Your task to perform on an android device: check storage Image 0: 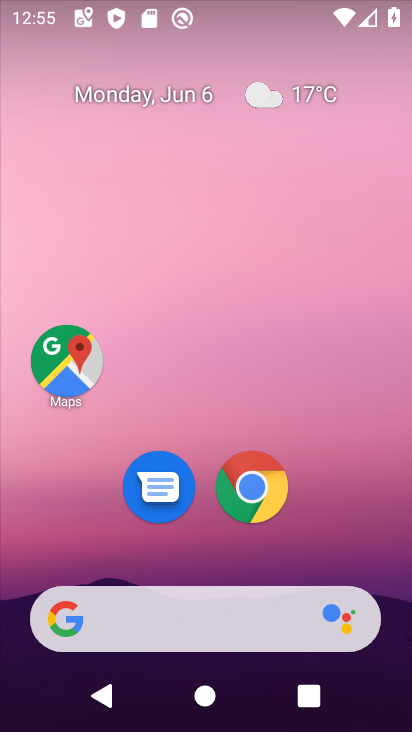
Step 0: drag from (84, 558) to (166, 154)
Your task to perform on an android device: check storage Image 1: 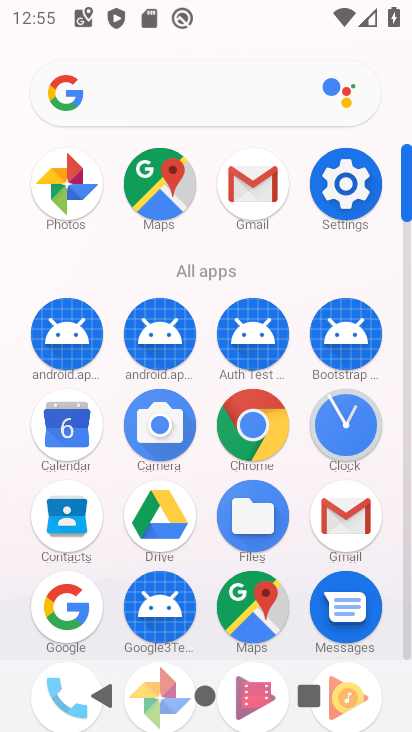
Step 1: drag from (145, 653) to (208, 284)
Your task to perform on an android device: check storage Image 2: 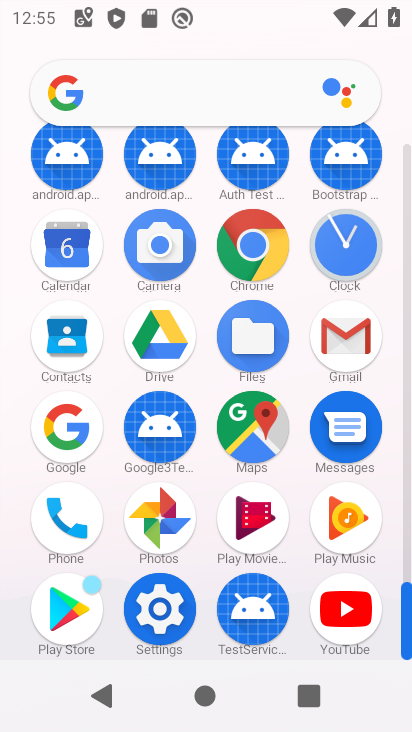
Step 2: click (155, 615)
Your task to perform on an android device: check storage Image 3: 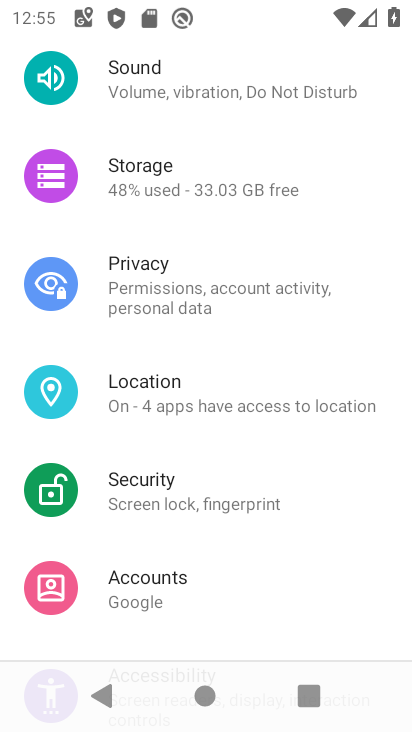
Step 3: drag from (188, 210) to (206, 508)
Your task to perform on an android device: check storage Image 4: 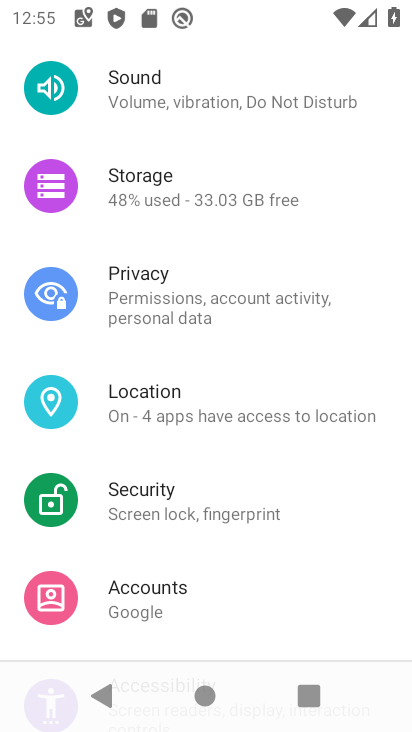
Step 4: click (219, 215)
Your task to perform on an android device: check storage Image 5: 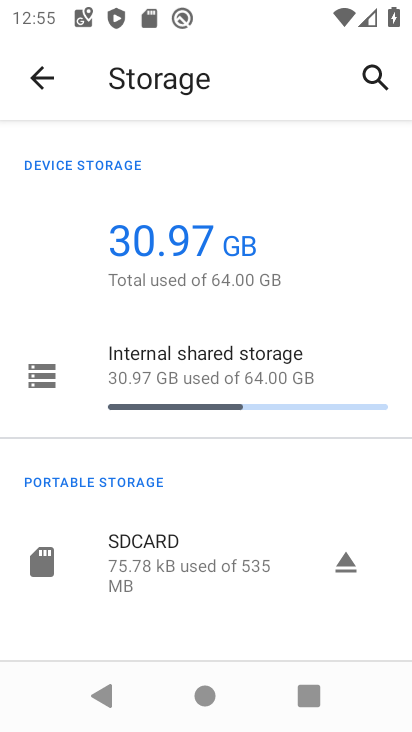
Step 5: task complete